Your task to perform on an android device: Open Google Chrome and click the shortcut for Amazon.com Image 0: 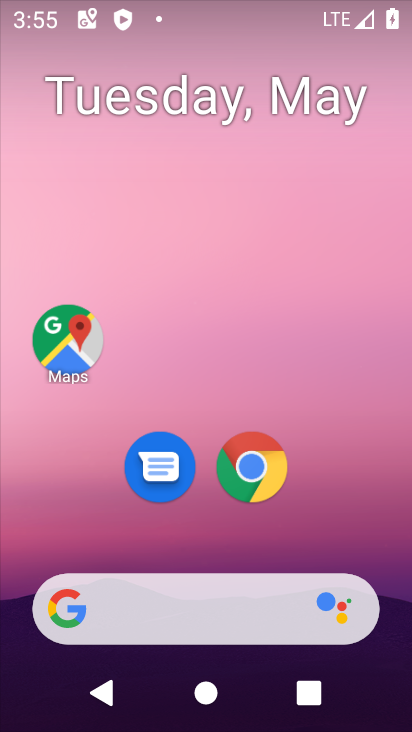
Step 0: click (250, 464)
Your task to perform on an android device: Open Google Chrome and click the shortcut for Amazon.com Image 1: 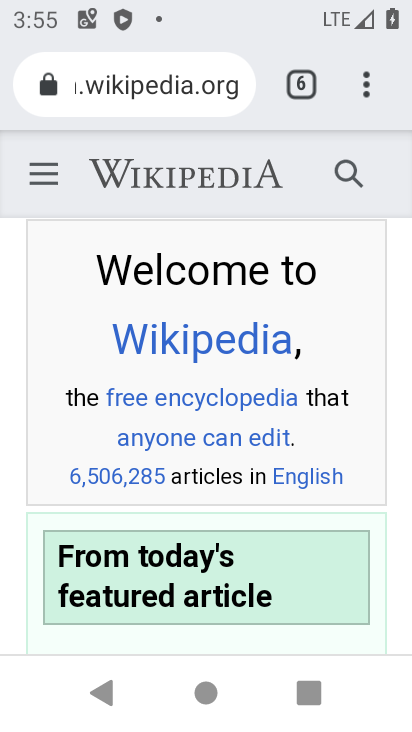
Step 1: click (298, 80)
Your task to perform on an android device: Open Google Chrome and click the shortcut for Amazon.com Image 2: 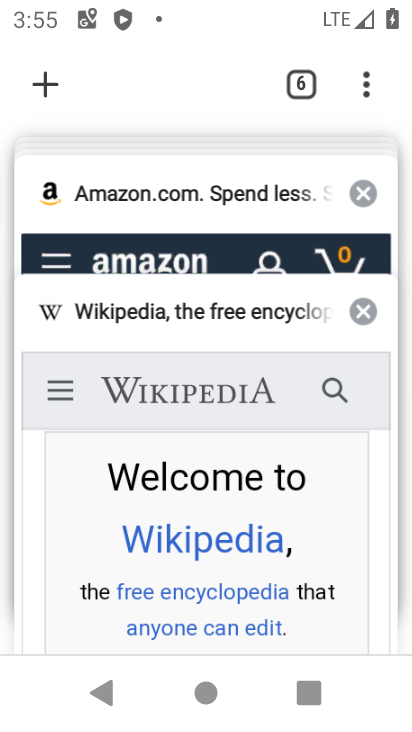
Step 2: click (36, 78)
Your task to perform on an android device: Open Google Chrome and click the shortcut for Amazon.com Image 3: 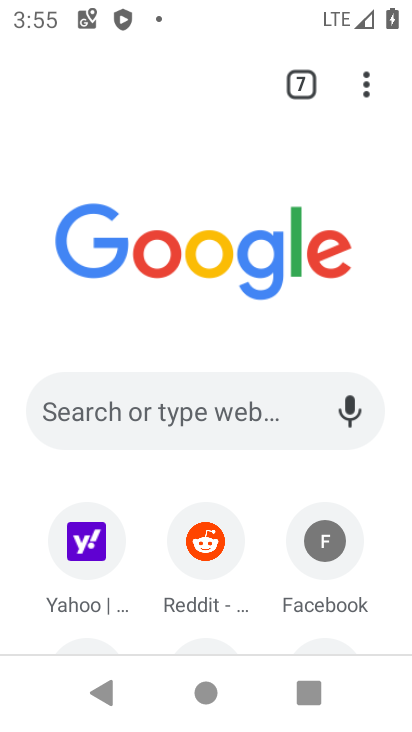
Step 3: drag from (381, 473) to (340, 227)
Your task to perform on an android device: Open Google Chrome and click the shortcut for Amazon.com Image 4: 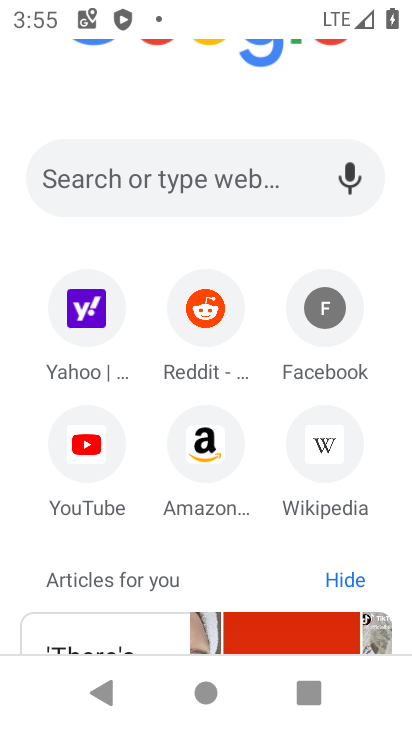
Step 4: click (215, 433)
Your task to perform on an android device: Open Google Chrome and click the shortcut for Amazon.com Image 5: 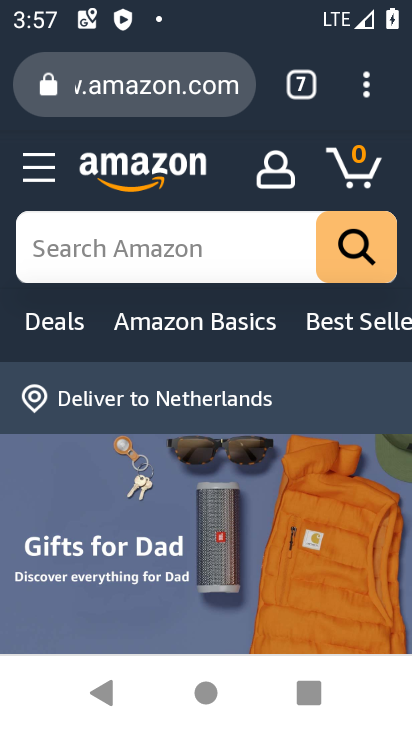
Step 5: task complete